Your task to perform on an android device: Open Android settings Image 0: 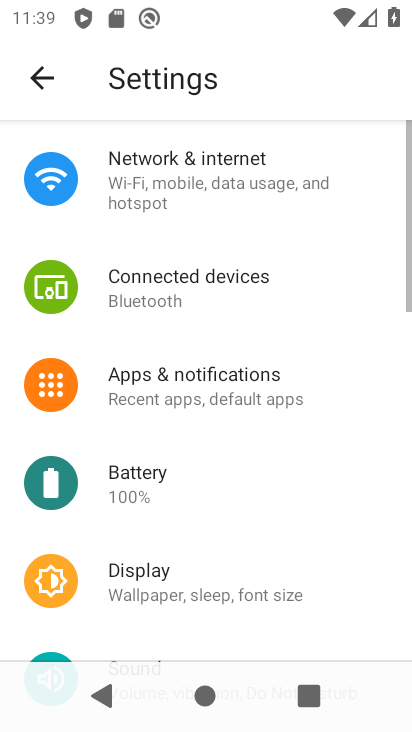
Step 0: task complete